Your task to perform on an android device: install app "Messages" Image 0: 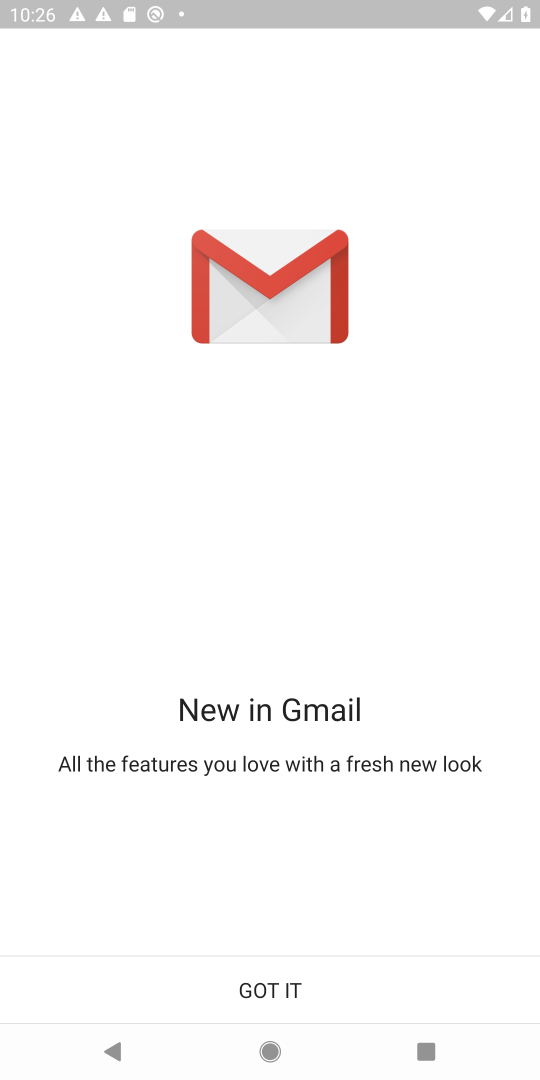
Step 0: press home button
Your task to perform on an android device: install app "Messages" Image 1: 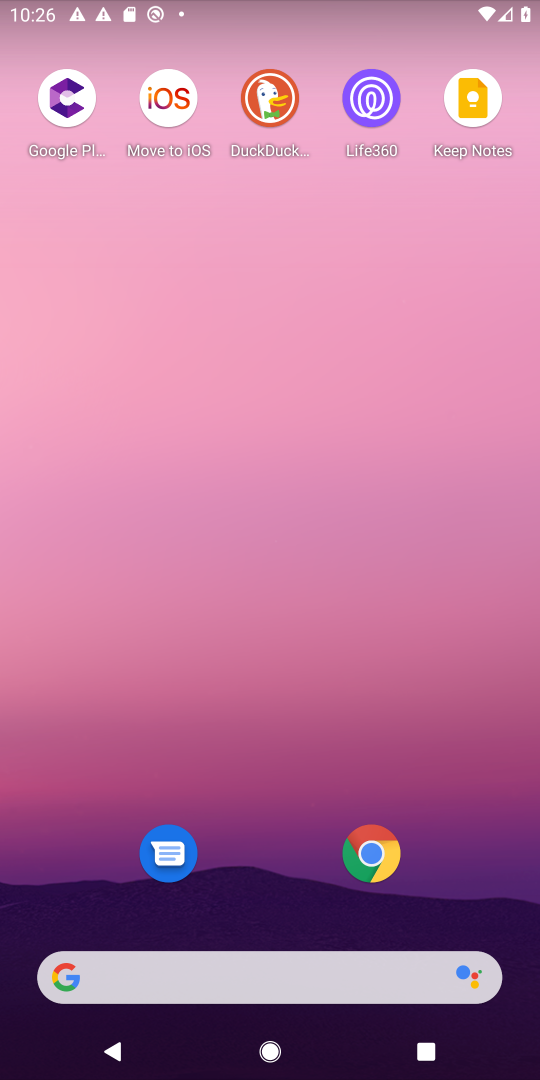
Step 1: drag from (308, 1068) to (271, 122)
Your task to perform on an android device: install app "Messages" Image 2: 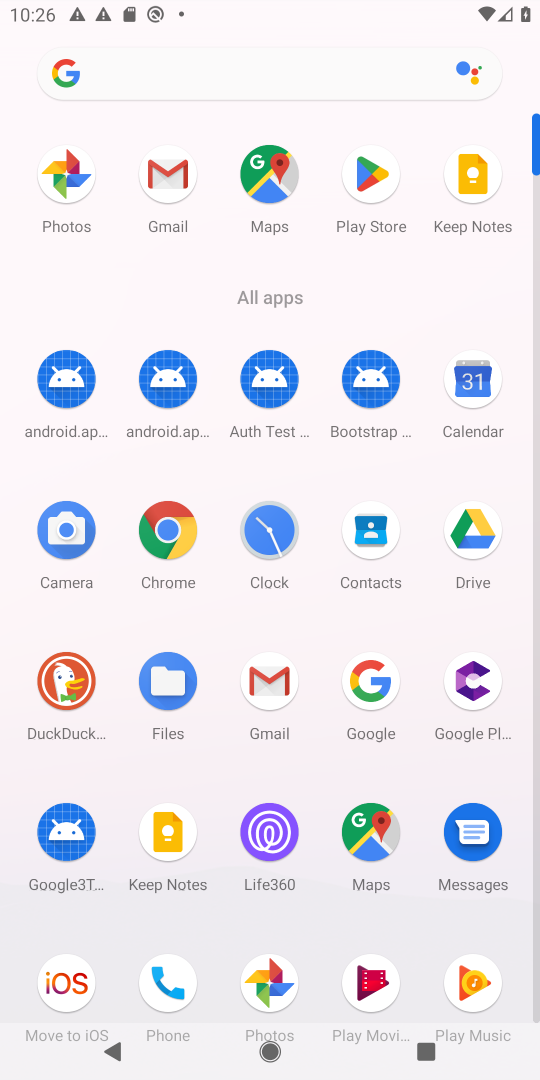
Step 2: click (376, 170)
Your task to perform on an android device: install app "Messages" Image 3: 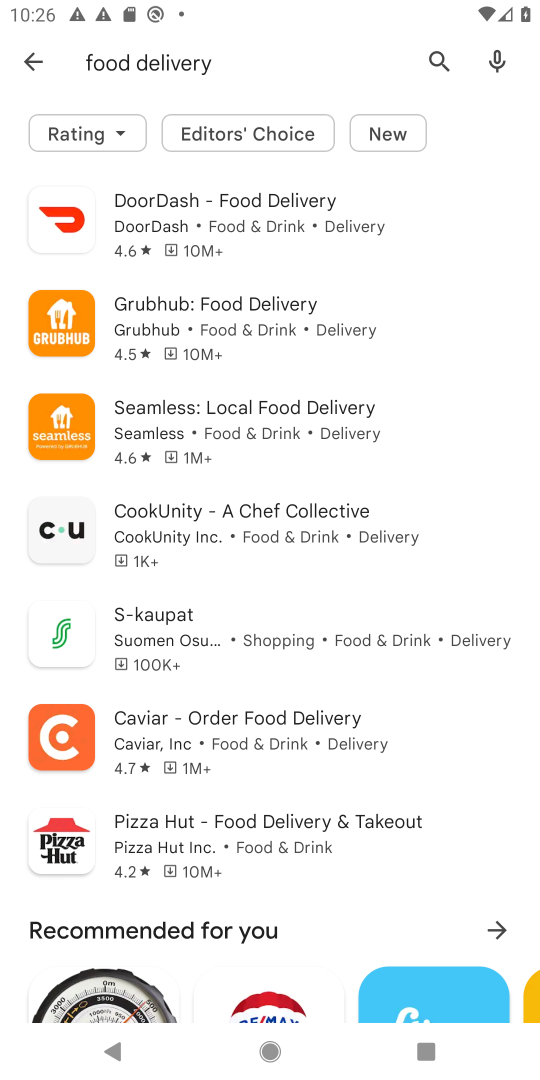
Step 3: click (437, 55)
Your task to perform on an android device: install app "Messages" Image 4: 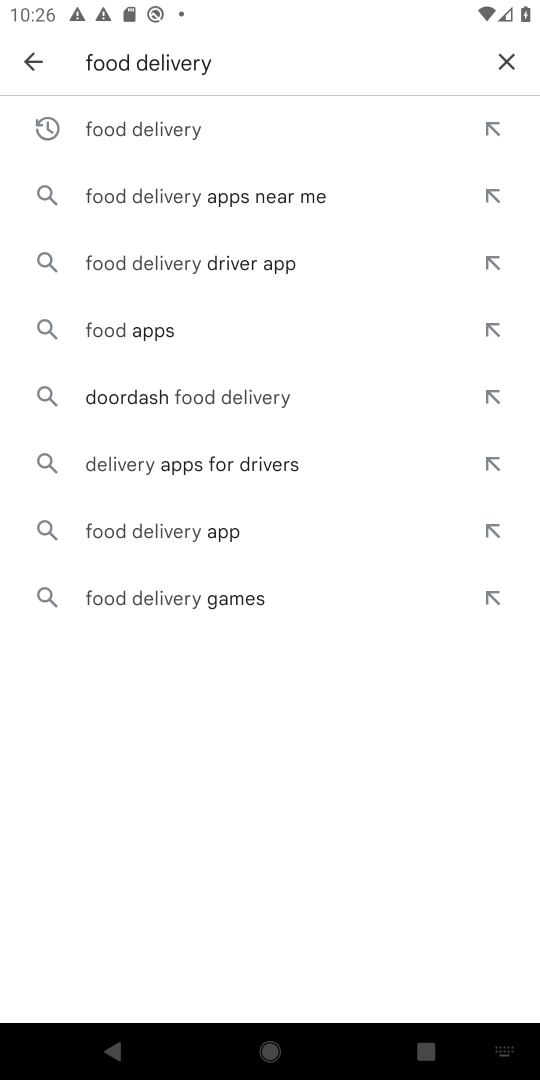
Step 4: click (507, 61)
Your task to perform on an android device: install app "Messages" Image 5: 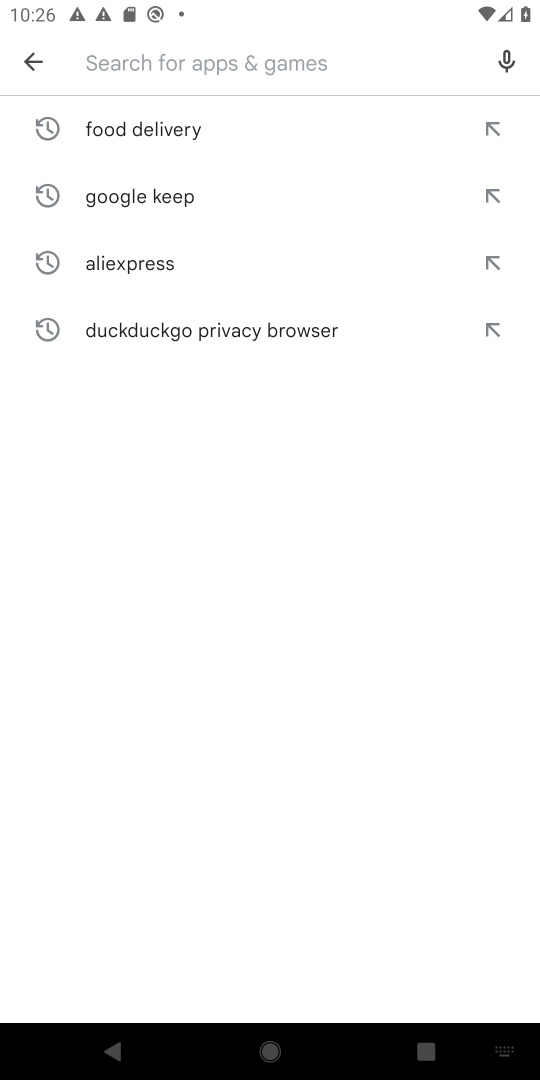
Step 5: type "Messages"
Your task to perform on an android device: install app "Messages" Image 6: 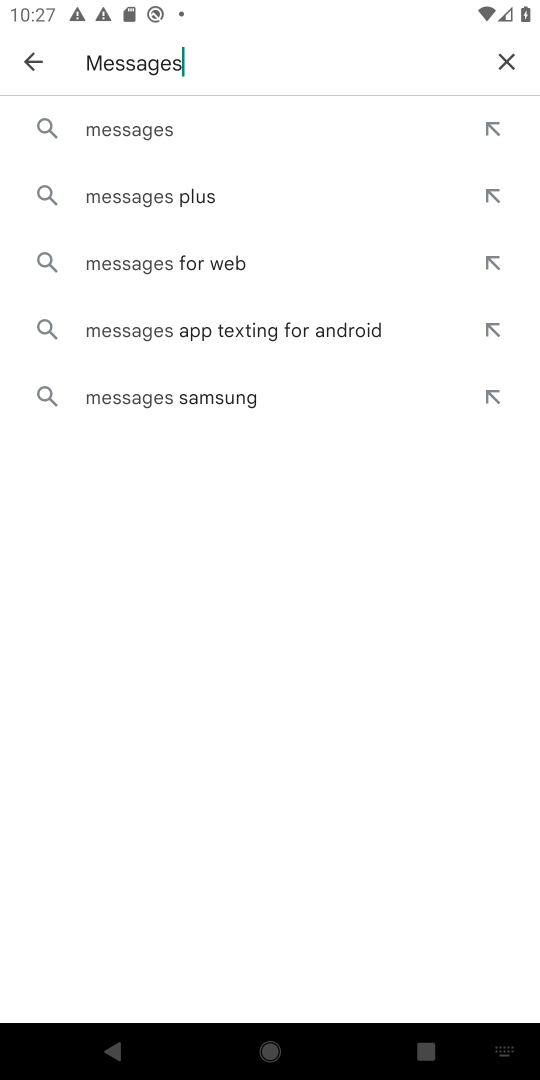
Step 6: click (102, 125)
Your task to perform on an android device: install app "Messages" Image 7: 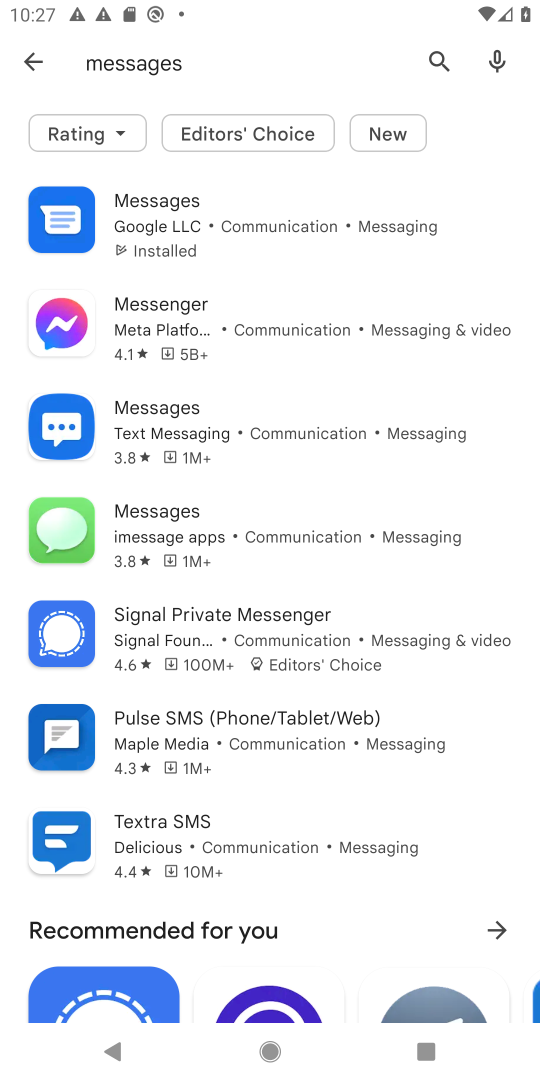
Step 7: click (140, 202)
Your task to perform on an android device: install app "Messages" Image 8: 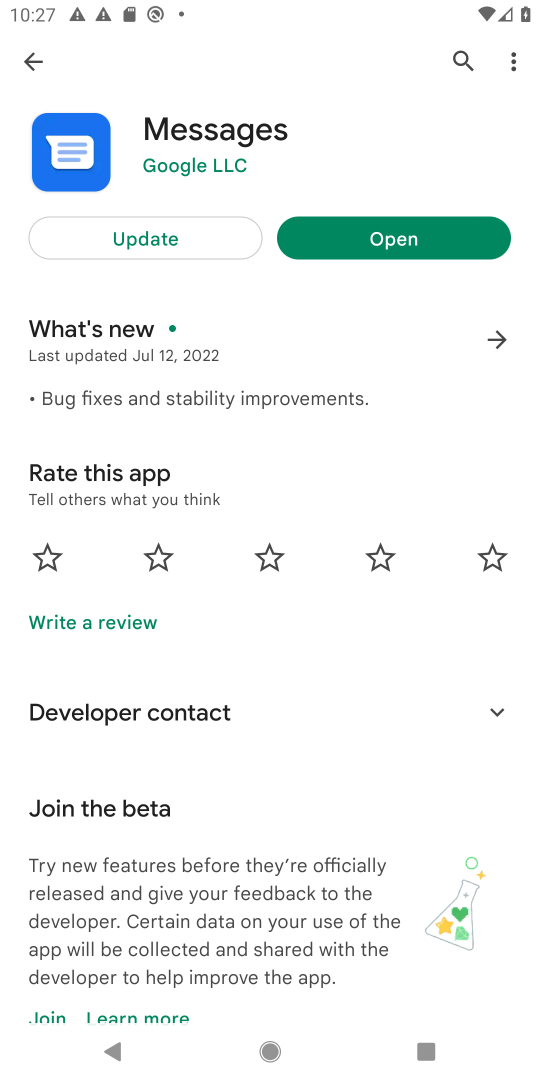
Step 8: task complete